Your task to perform on an android device: uninstall "Adobe Acrobat Reader" Image 0: 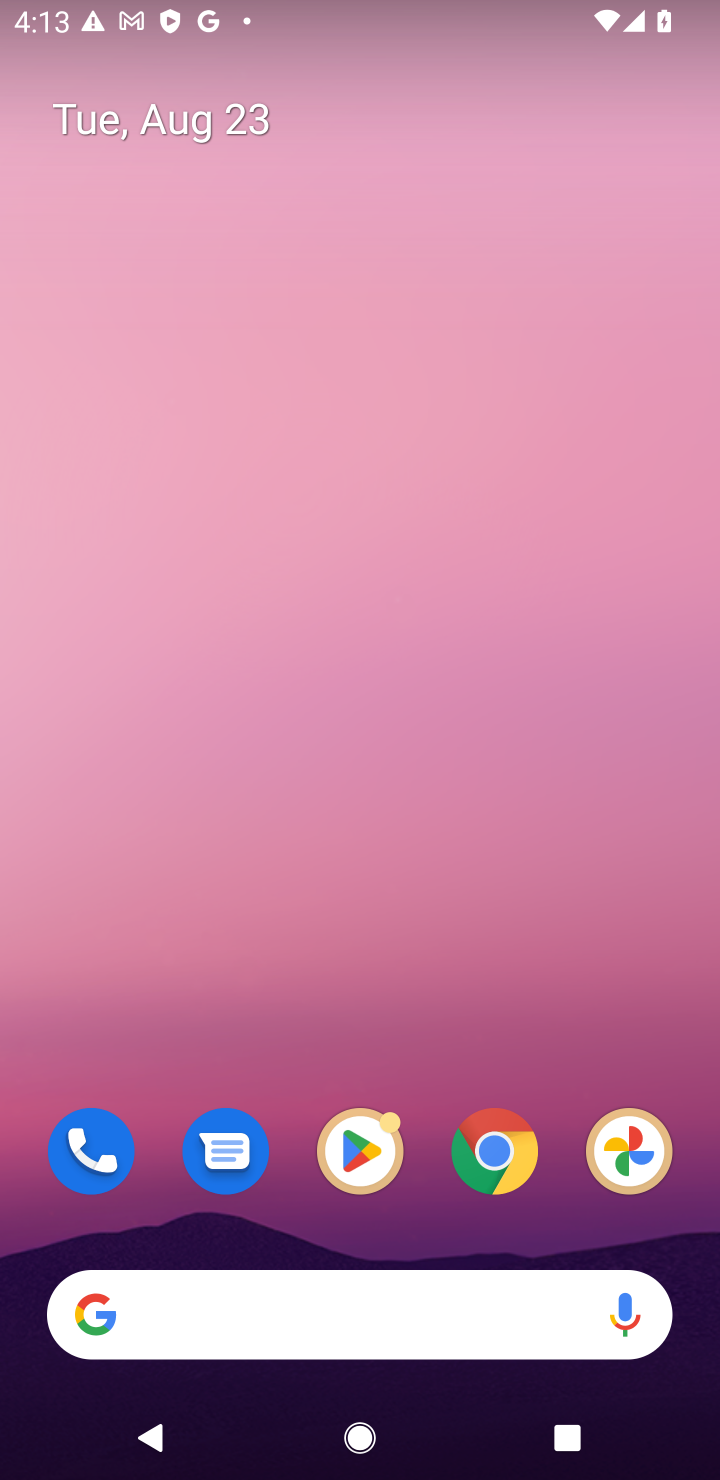
Step 0: press home button
Your task to perform on an android device: uninstall "Adobe Acrobat Reader" Image 1: 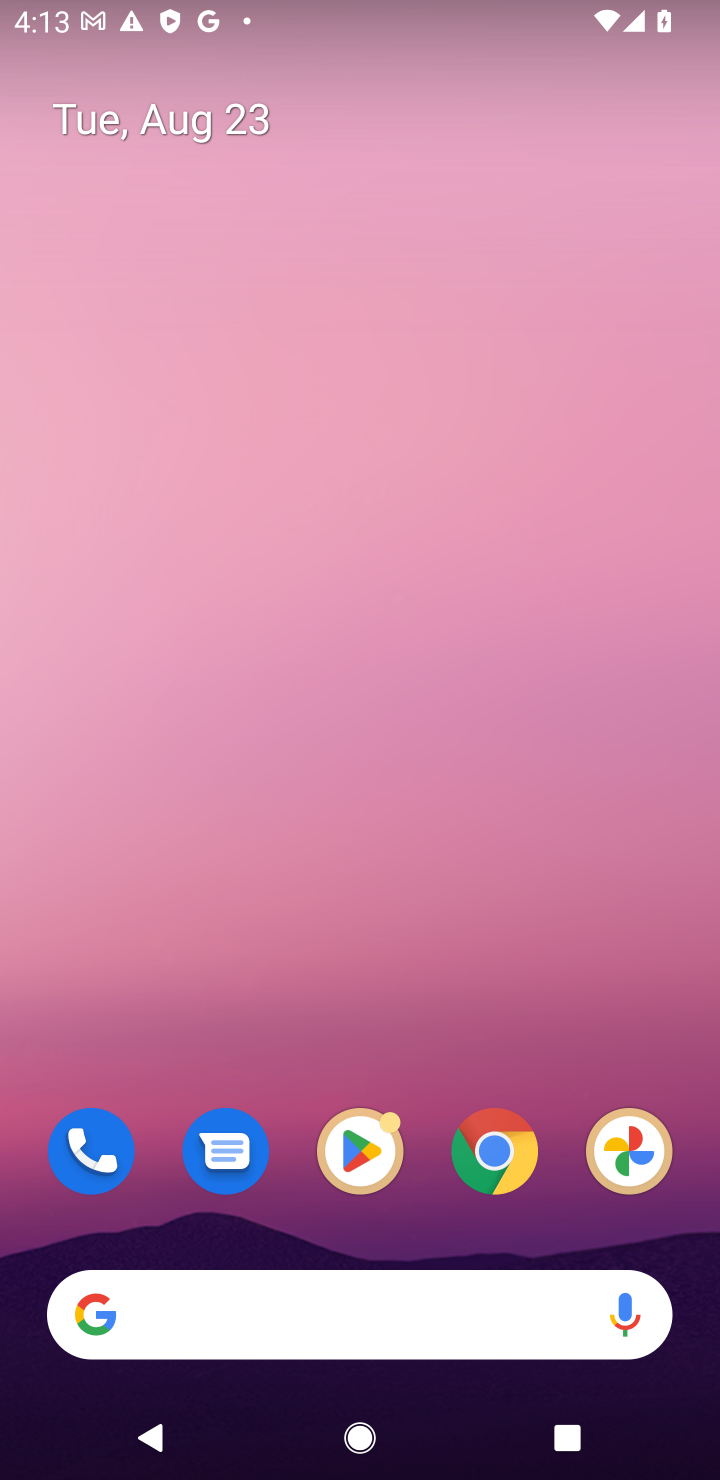
Step 1: drag from (441, 1066) to (502, 24)
Your task to perform on an android device: uninstall "Adobe Acrobat Reader" Image 2: 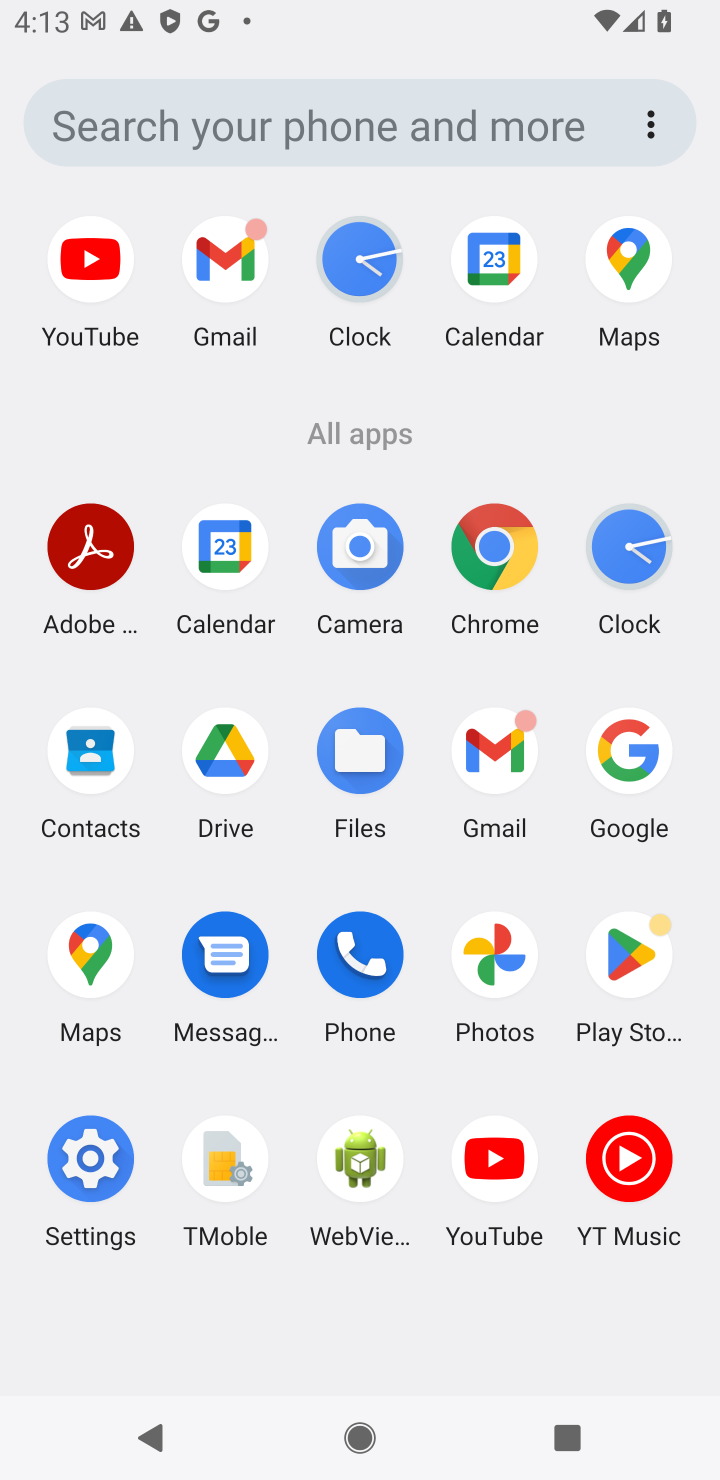
Step 2: click (610, 949)
Your task to perform on an android device: uninstall "Adobe Acrobat Reader" Image 3: 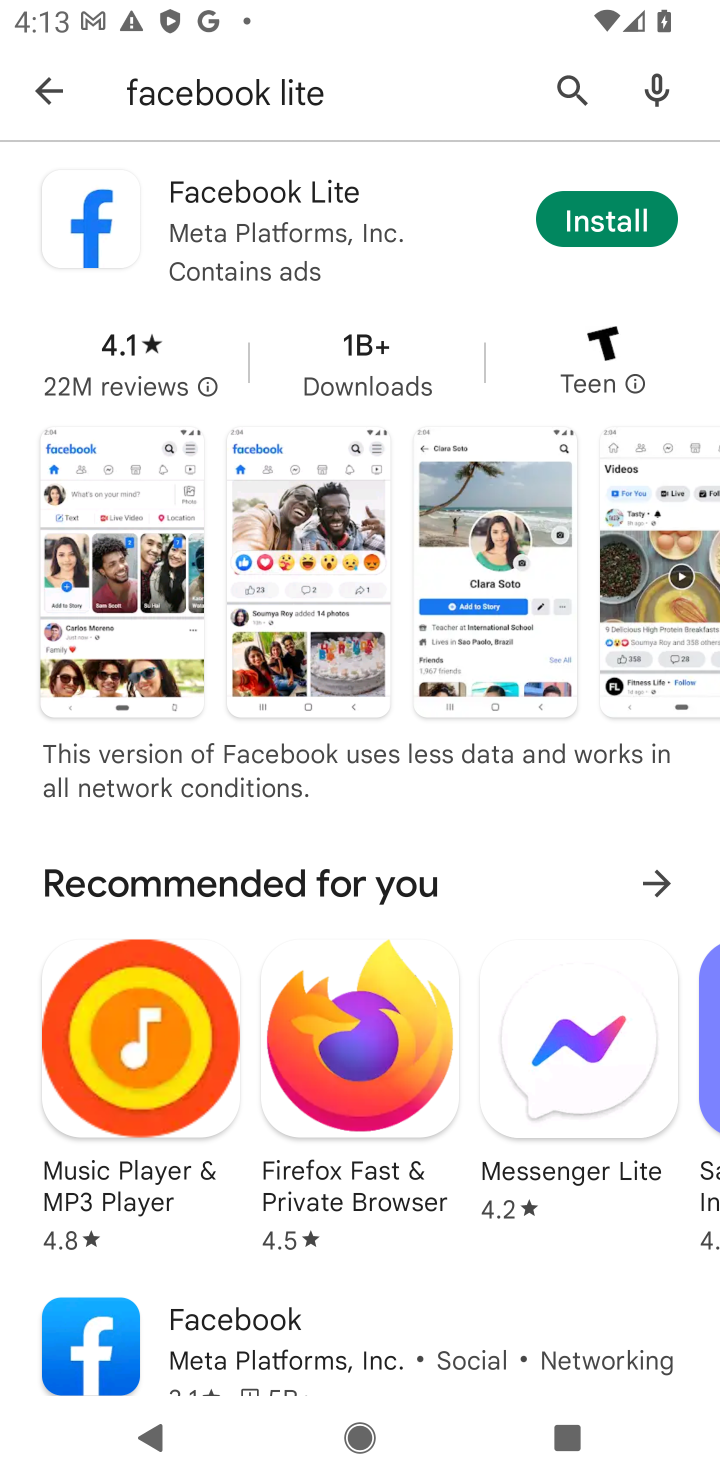
Step 3: click (592, 82)
Your task to perform on an android device: uninstall "Adobe Acrobat Reader" Image 4: 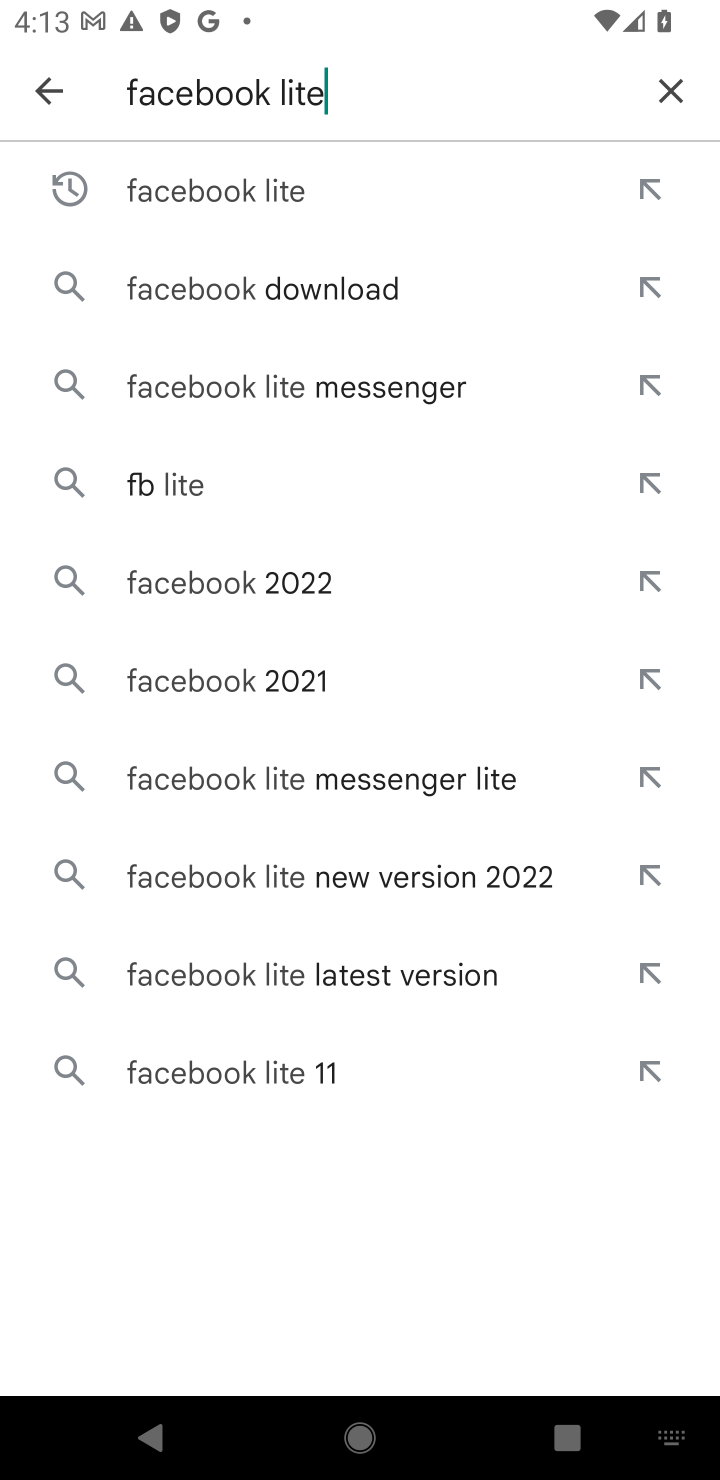
Step 4: click (666, 95)
Your task to perform on an android device: uninstall "Adobe Acrobat Reader" Image 5: 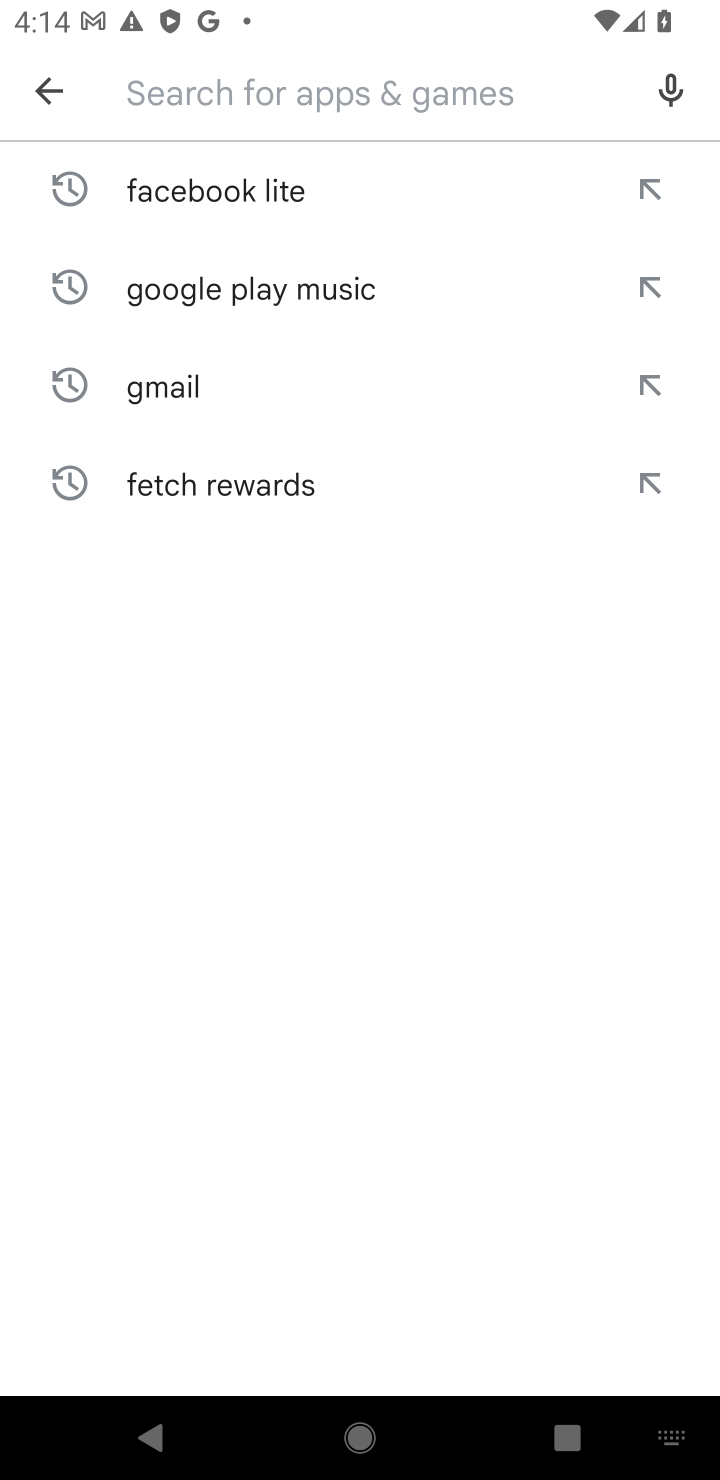
Step 5: type "Adobe Acrobat Reader"
Your task to perform on an android device: uninstall "Adobe Acrobat Reader" Image 6: 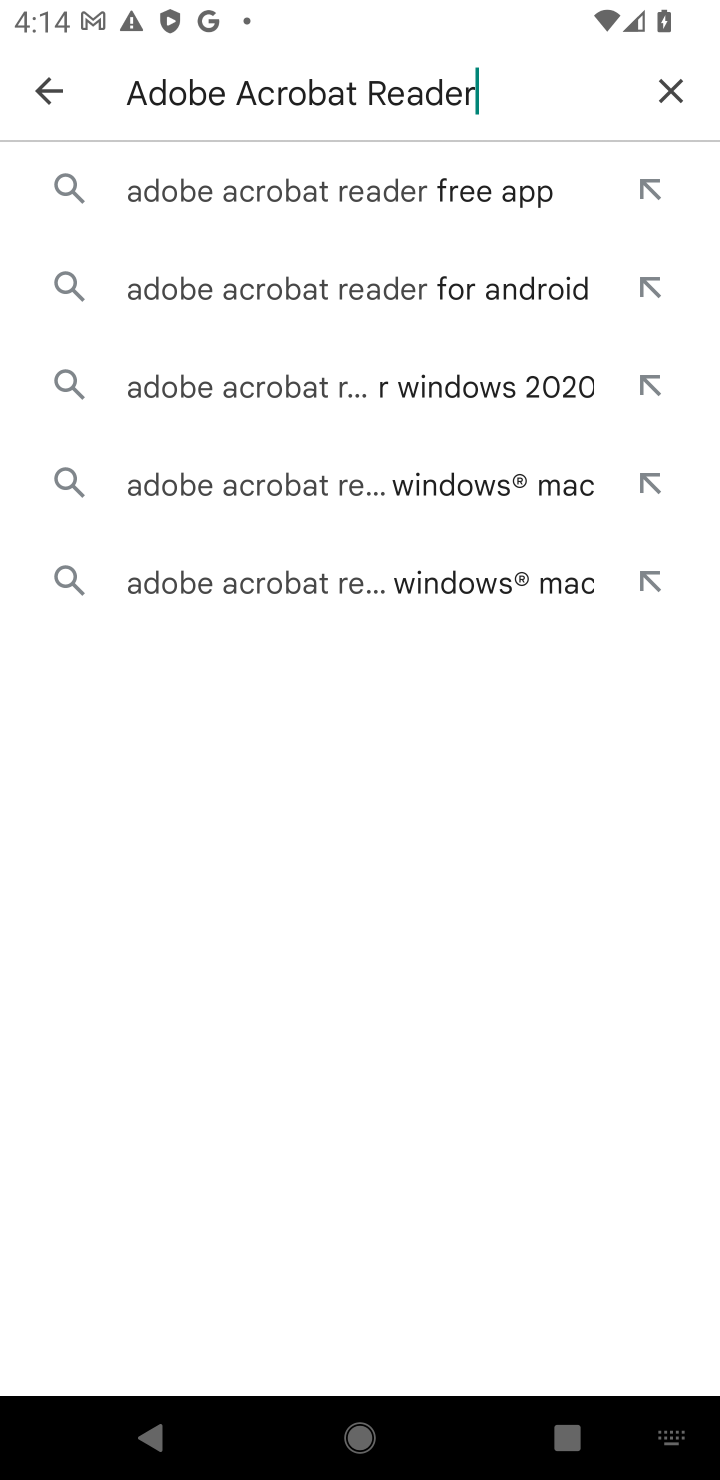
Step 6: click (388, 211)
Your task to perform on an android device: uninstall "Adobe Acrobat Reader" Image 7: 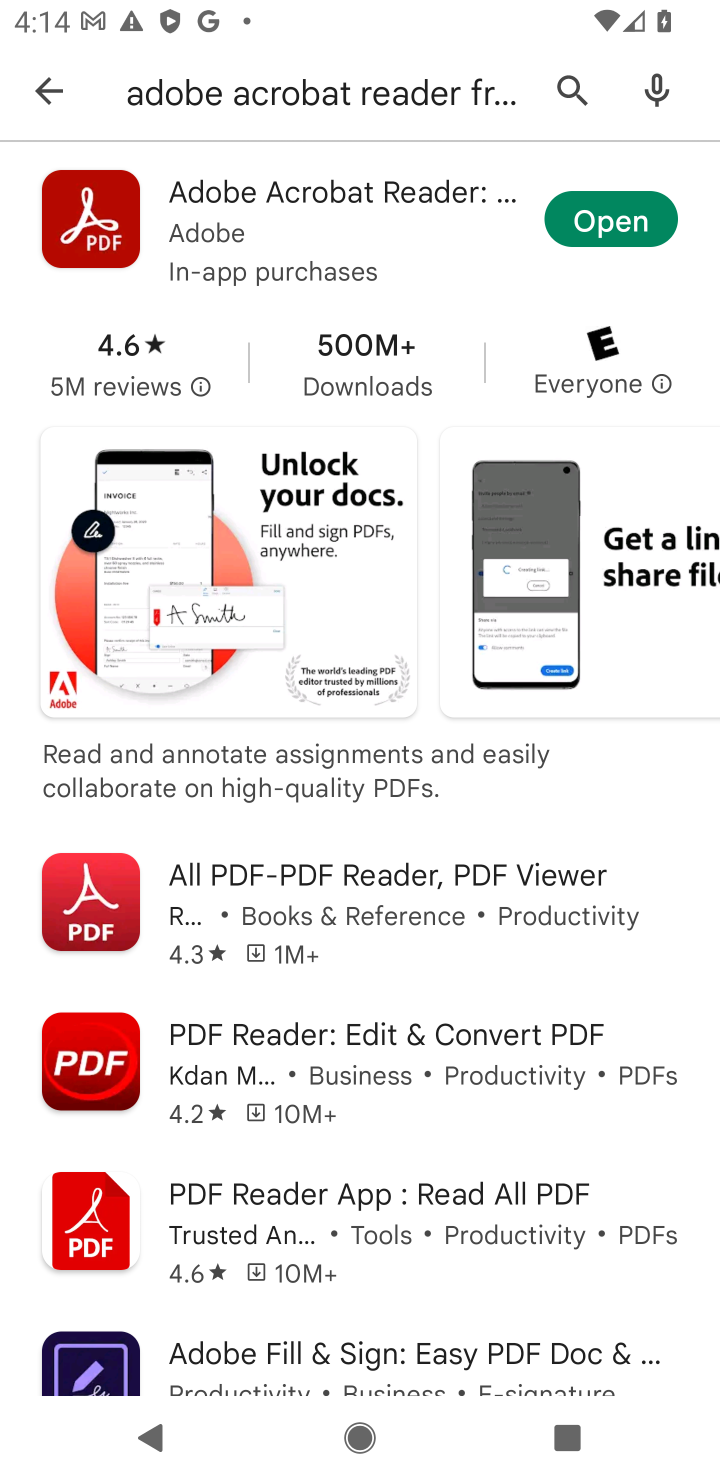
Step 7: click (246, 212)
Your task to perform on an android device: uninstall "Adobe Acrobat Reader" Image 8: 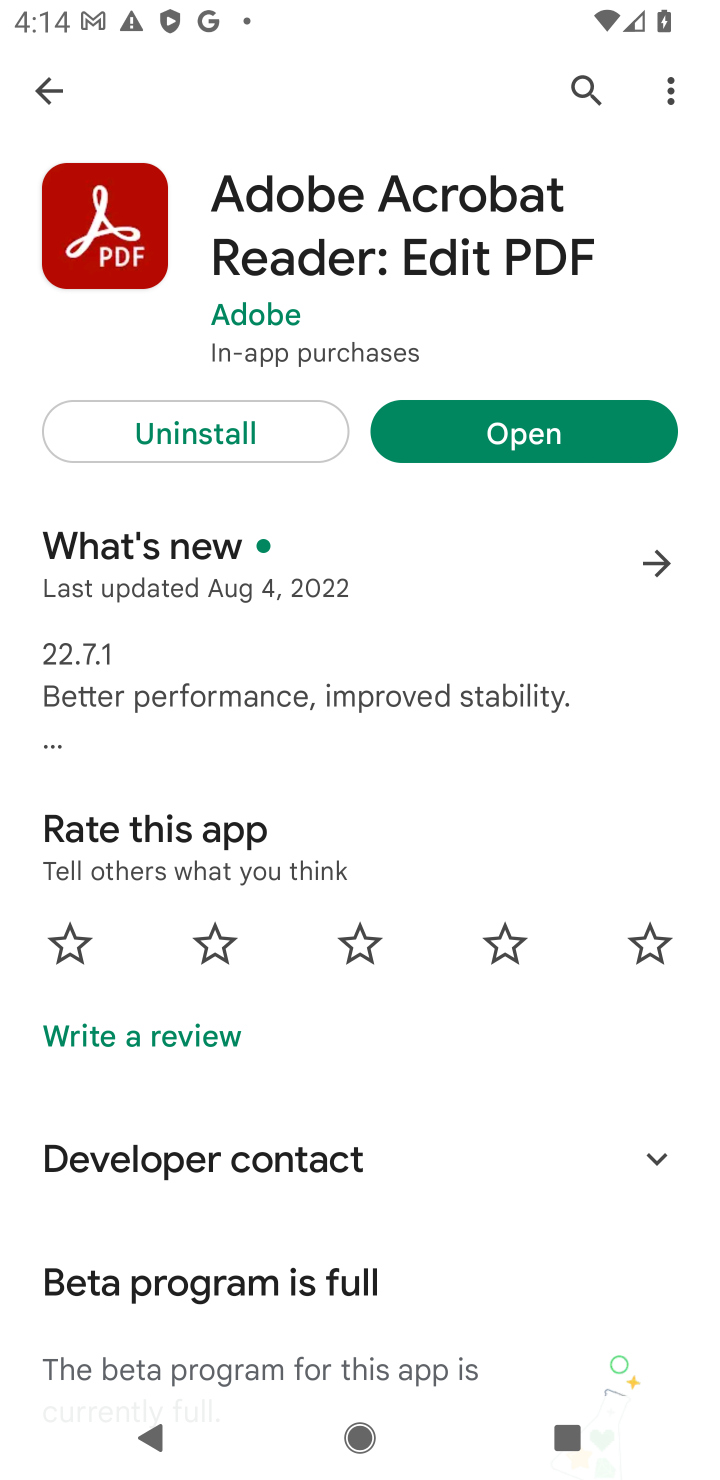
Step 8: click (176, 426)
Your task to perform on an android device: uninstall "Adobe Acrobat Reader" Image 9: 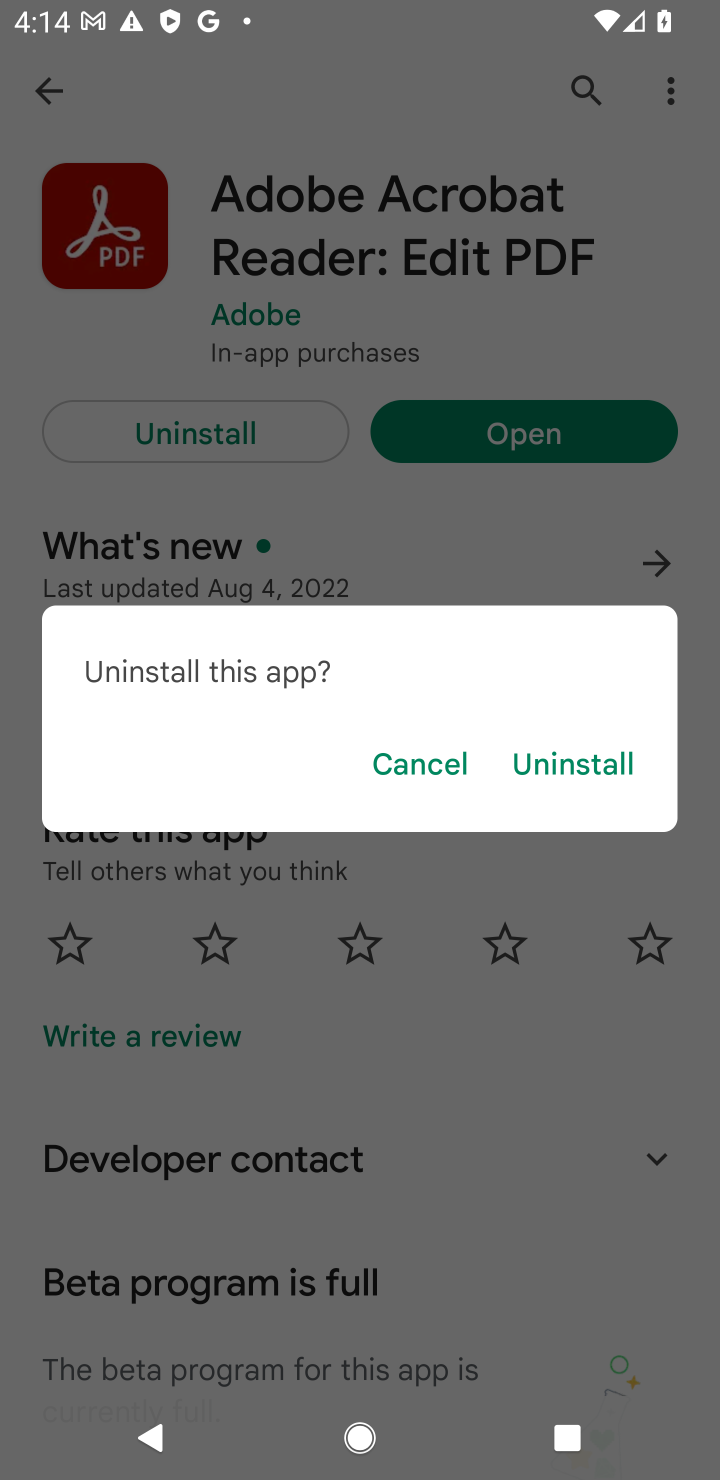
Step 9: click (635, 753)
Your task to perform on an android device: uninstall "Adobe Acrobat Reader" Image 10: 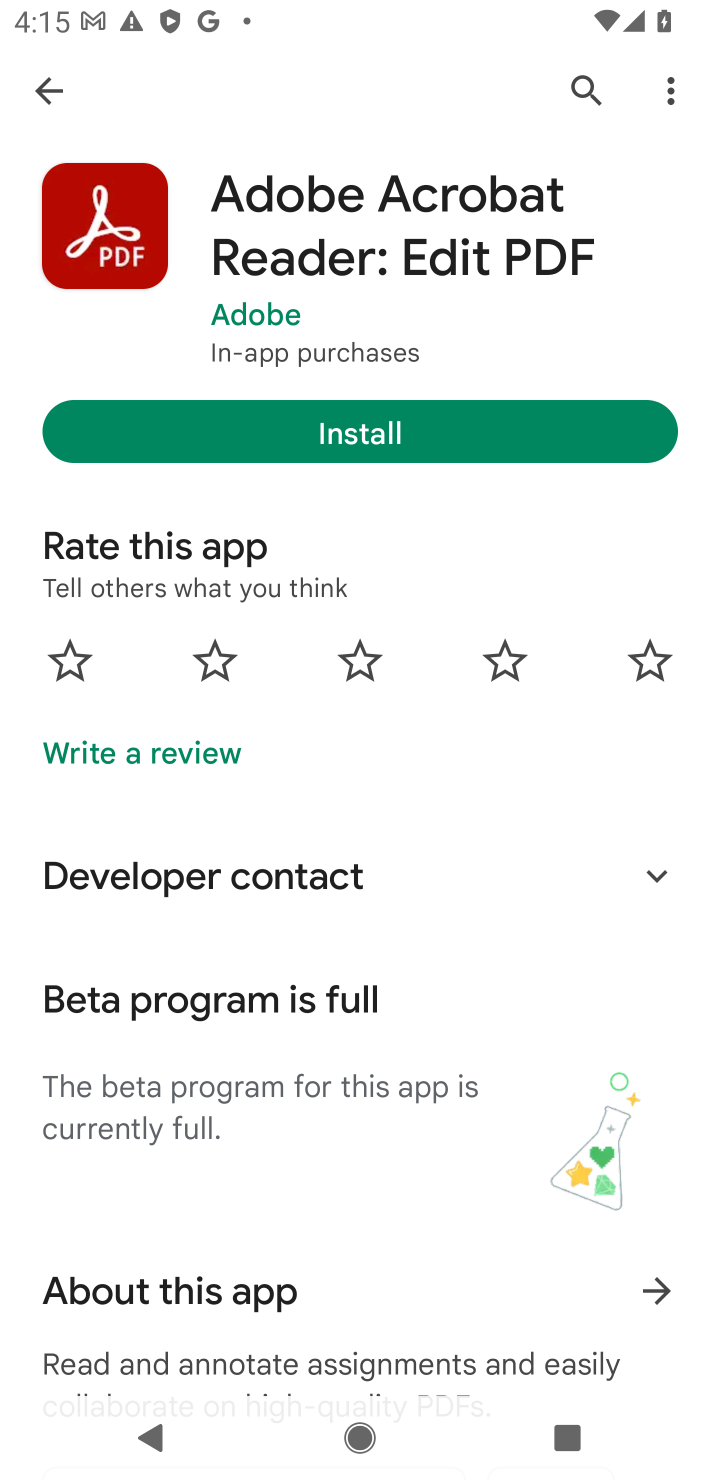
Step 10: task complete